Your task to perform on an android device: Add logitech g502 to the cart on amazon Image 0: 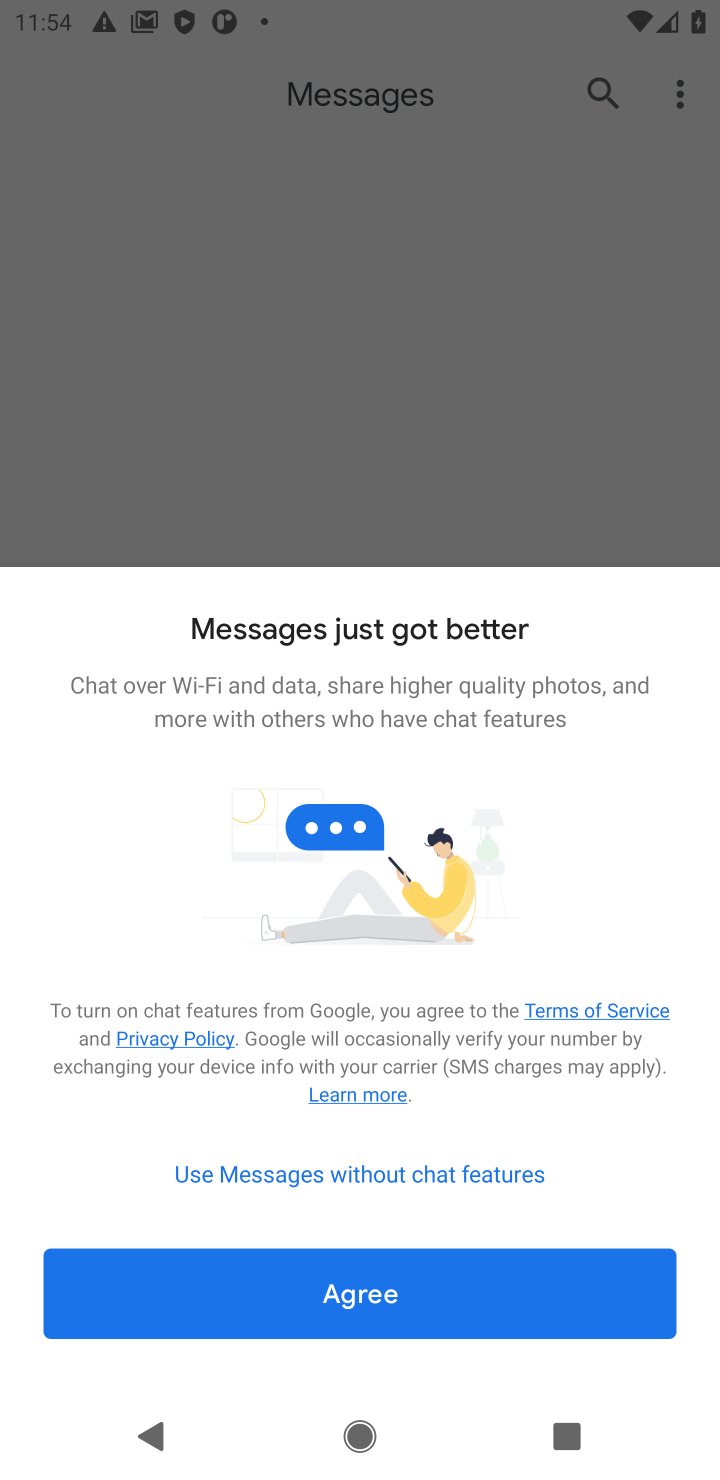
Step 0: press home button
Your task to perform on an android device: Add logitech g502 to the cart on amazon Image 1: 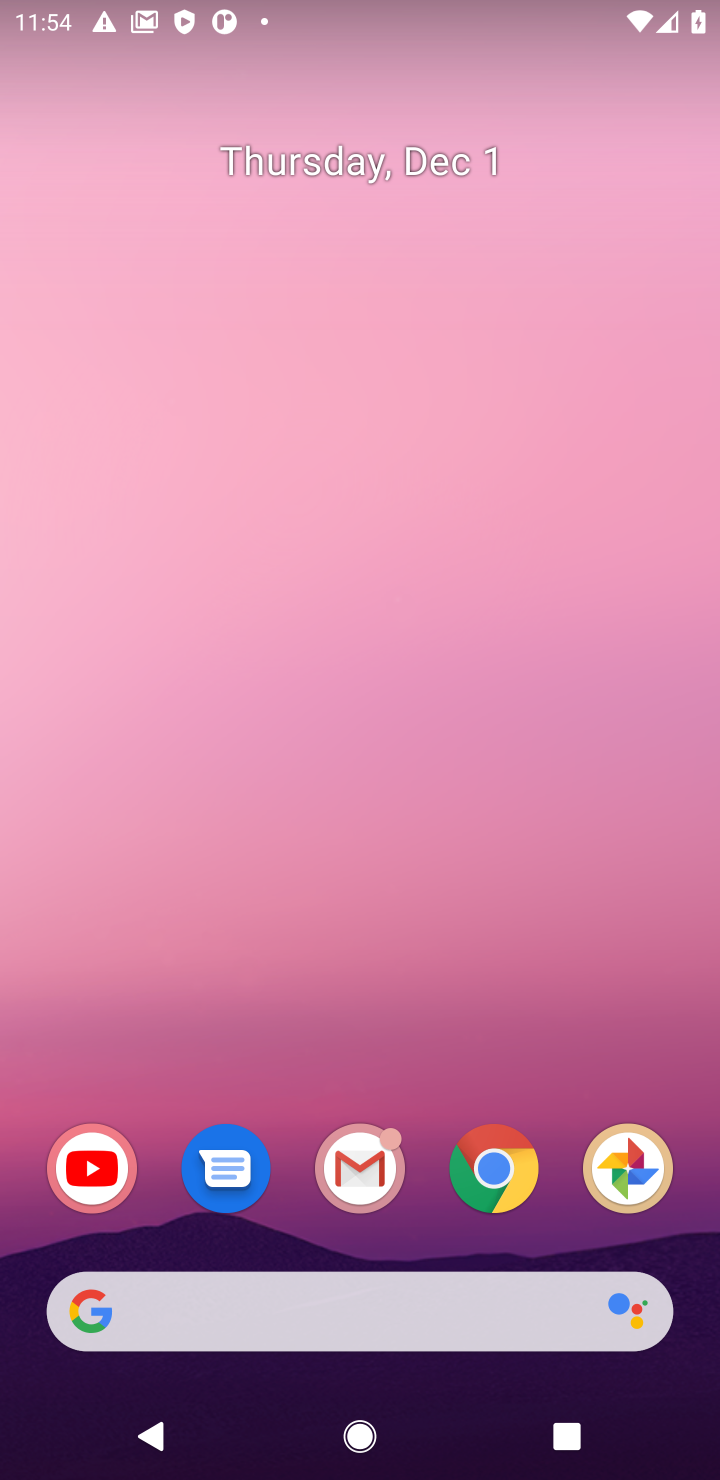
Step 1: click (507, 1165)
Your task to perform on an android device: Add logitech g502 to the cart on amazon Image 2: 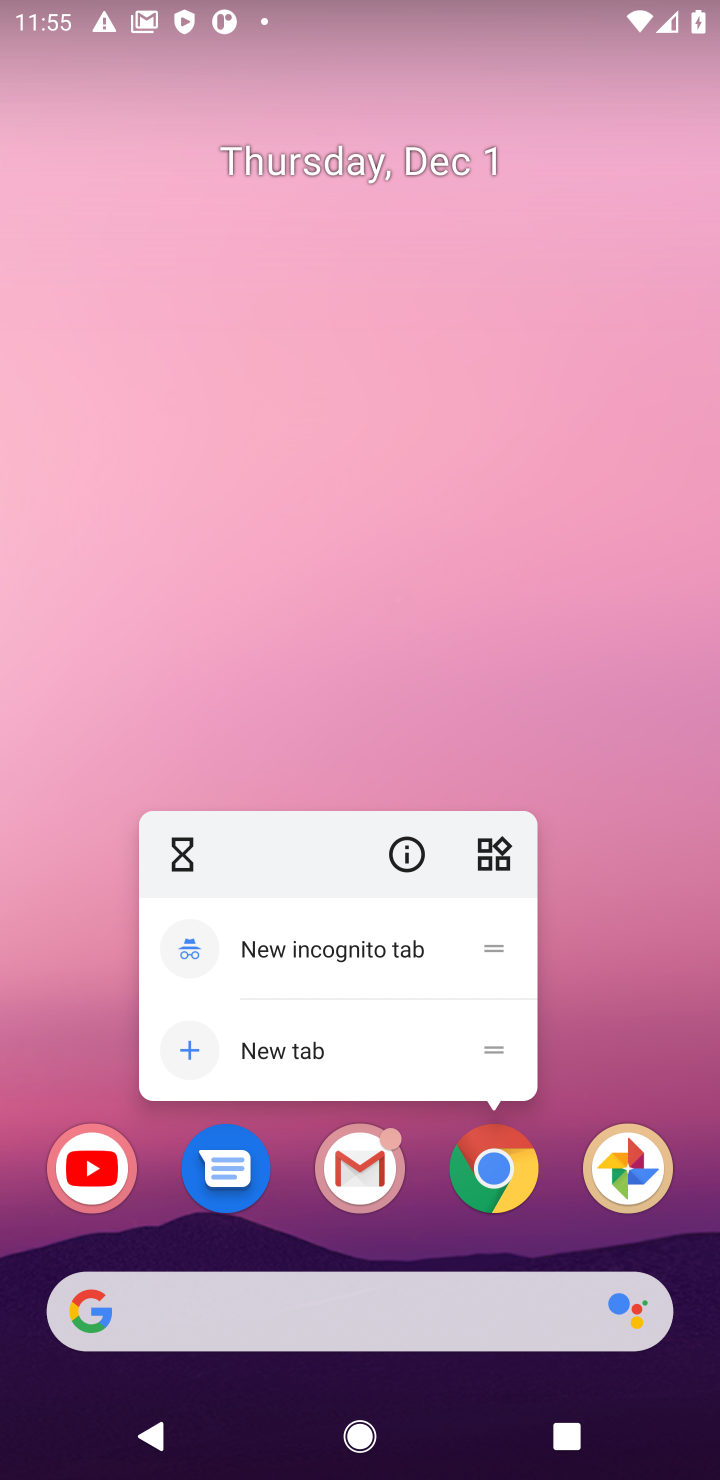
Step 2: click (507, 1165)
Your task to perform on an android device: Add logitech g502 to the cart on amazon Image 3: 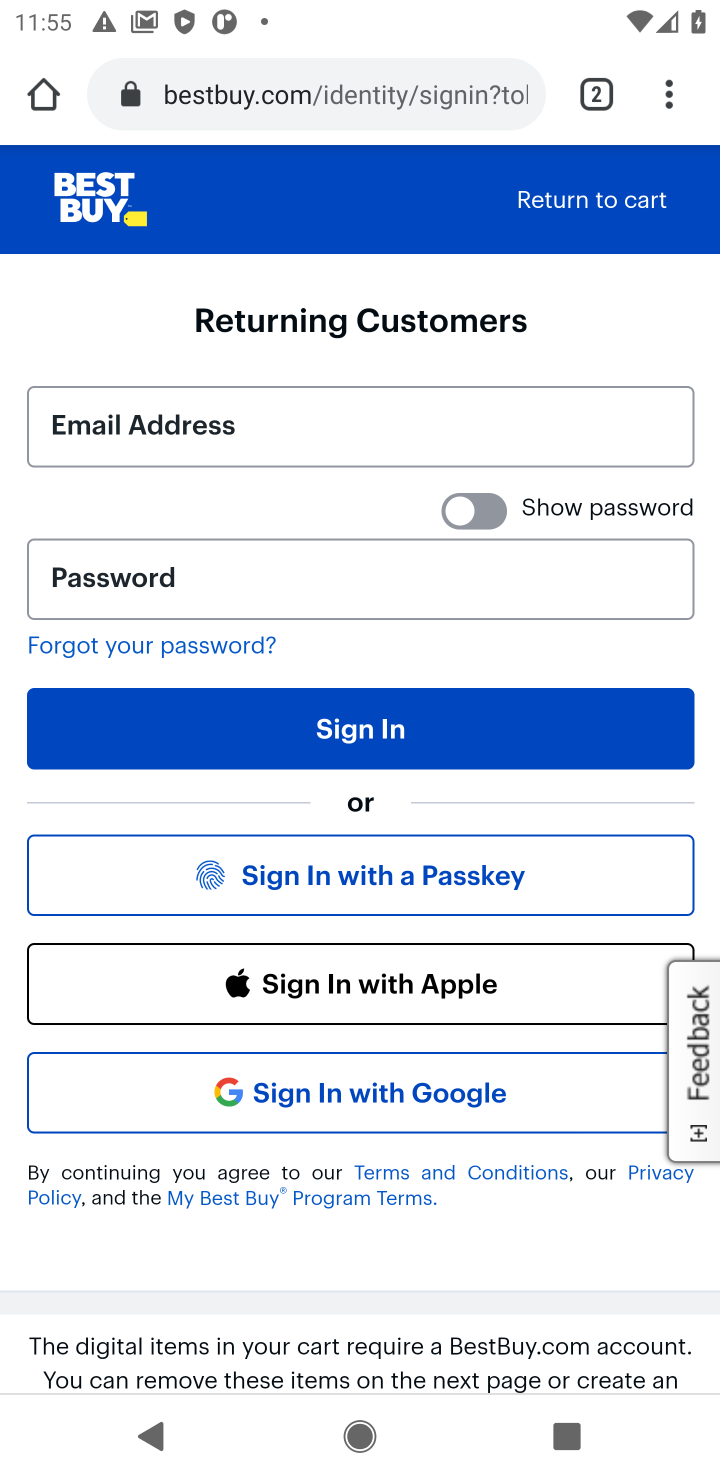
Step 3: click (304, 98)
Your task to perform on an android device: Add logitech g502 to the cart on amazon Image 4: 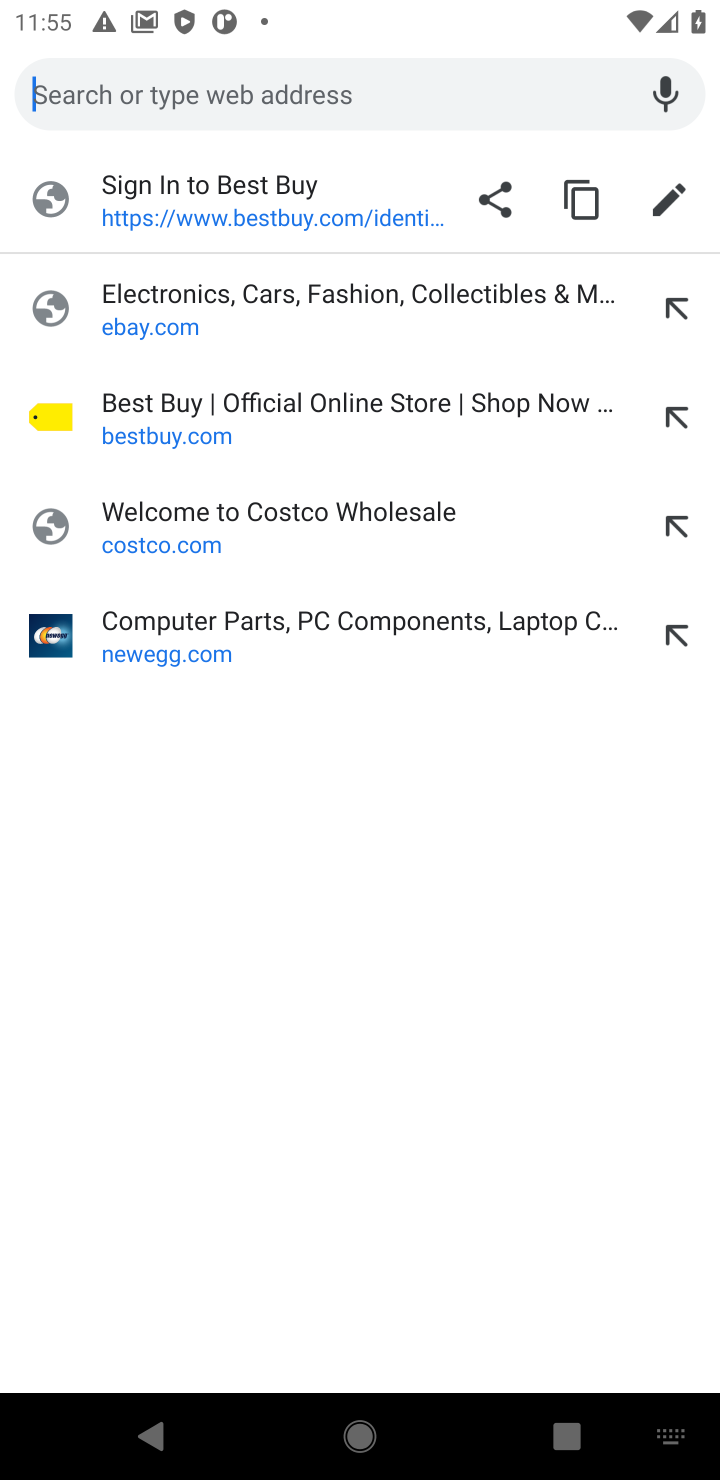
Step 4: type "amazon.com"
Your task to perform on an android device: Add logitech g502 to the cart on amazon Image 5: 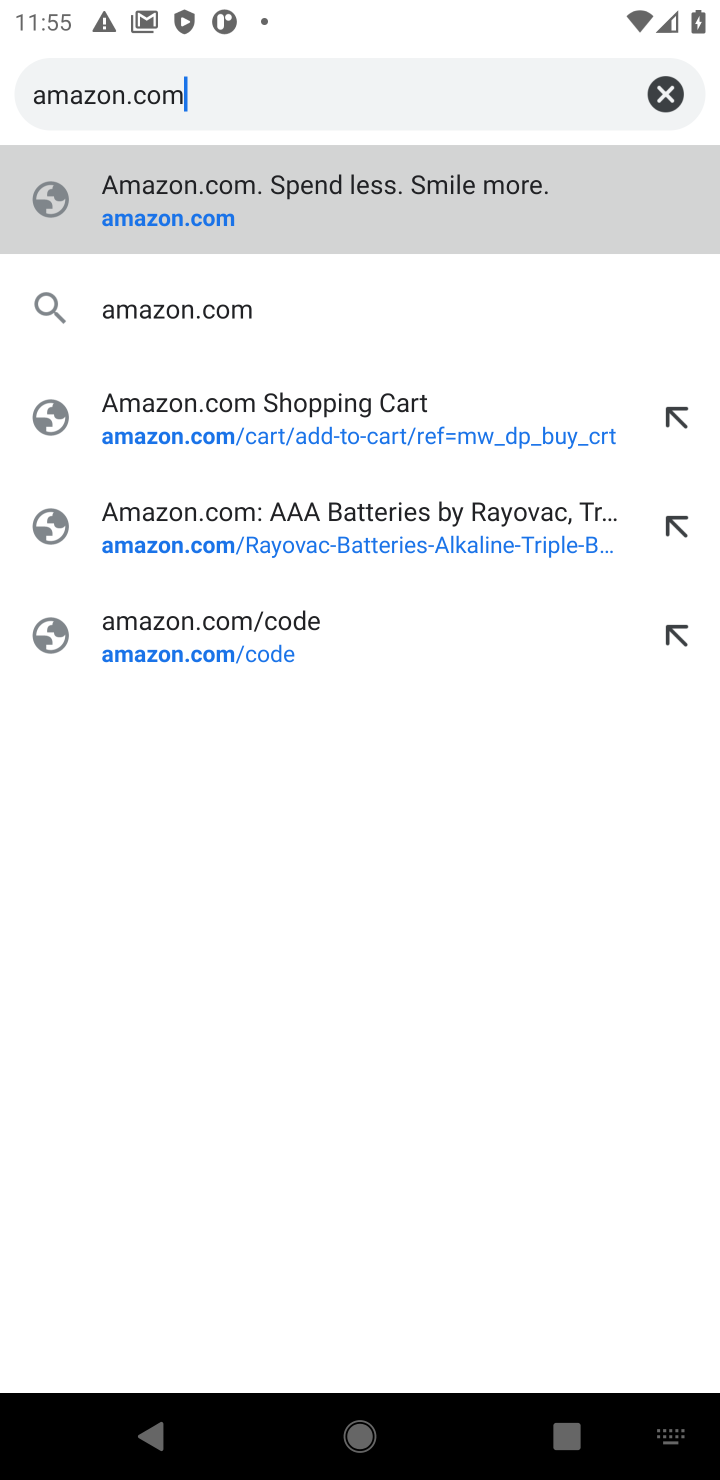
Step 5: click (169, 200)
Your task to perform on an android device: Add logitech g502 to the cart on amazon Image 6: 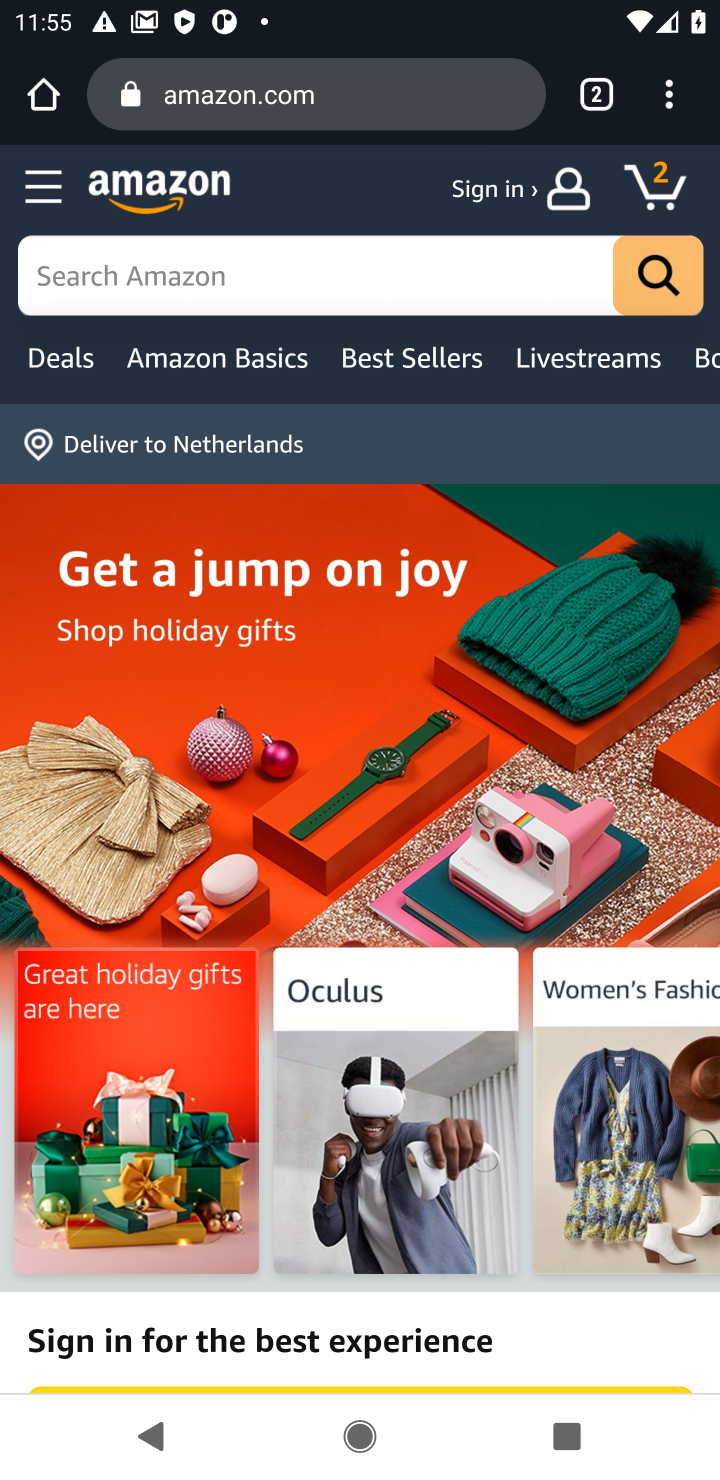
Step 6: click (133, 289)
Your task to perform on an android device: Add logitech g502 to the cart on amazon Image 7: 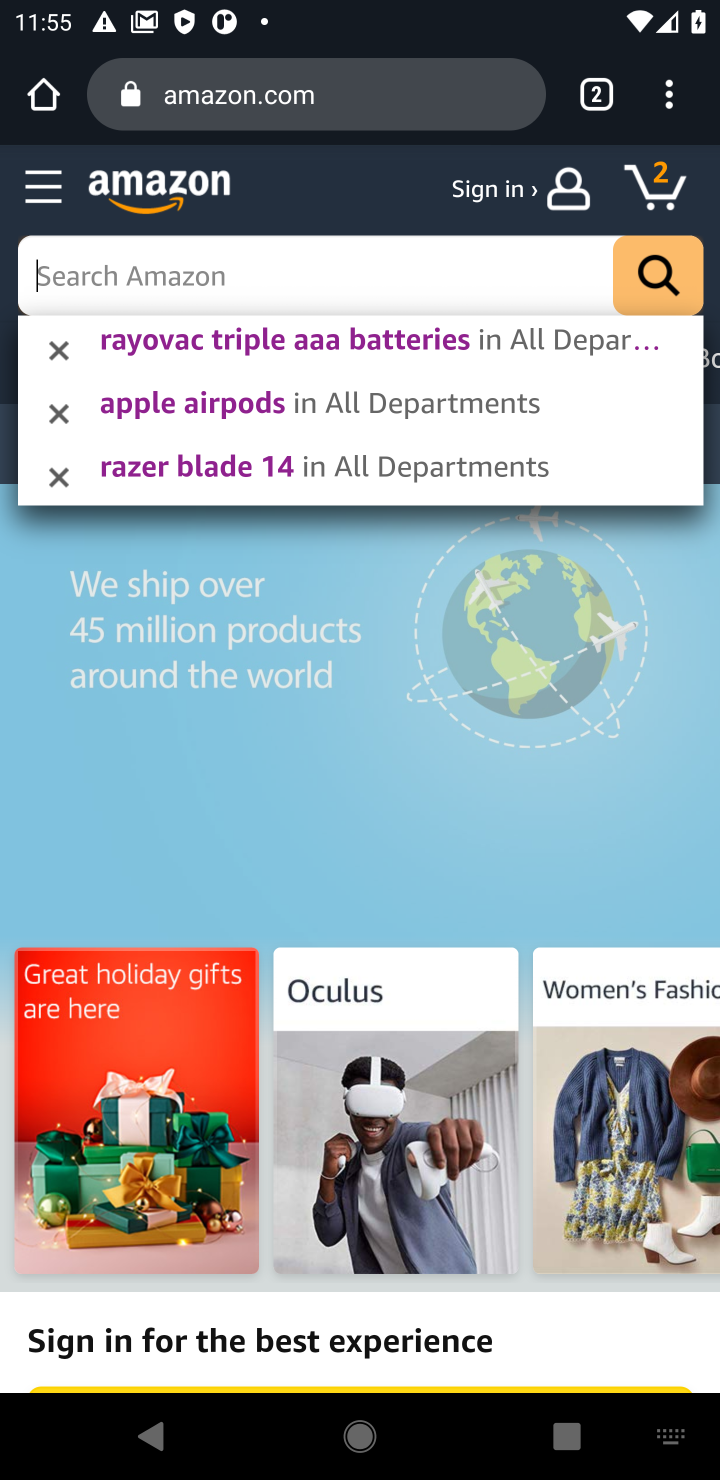
Step 7: type "logitech g502"
Your task to perform on an android device: Add logitech g502 to the cart on amazon Image 8: 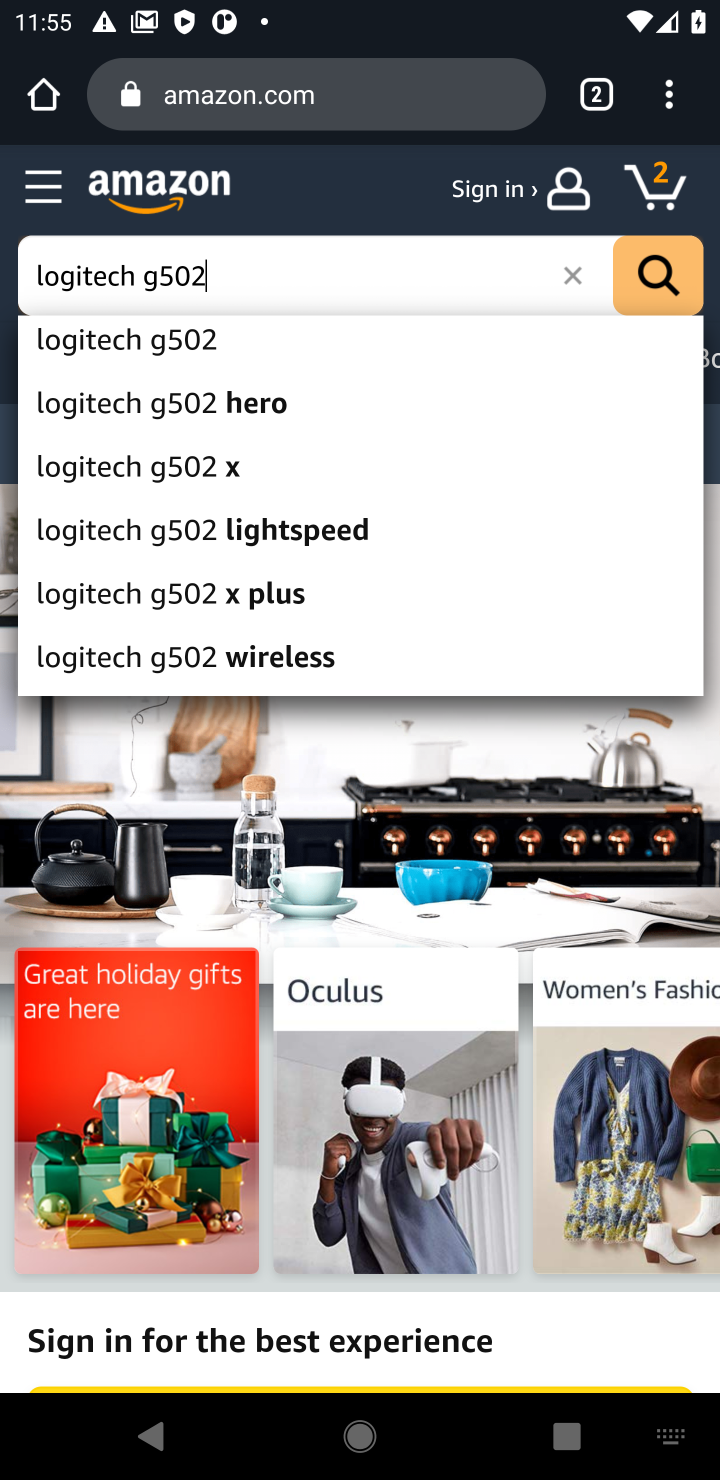
Step 8: click (140, 347)
Your task to perform on an android device: Add logitech g502 to the cart on amazon Image 9: 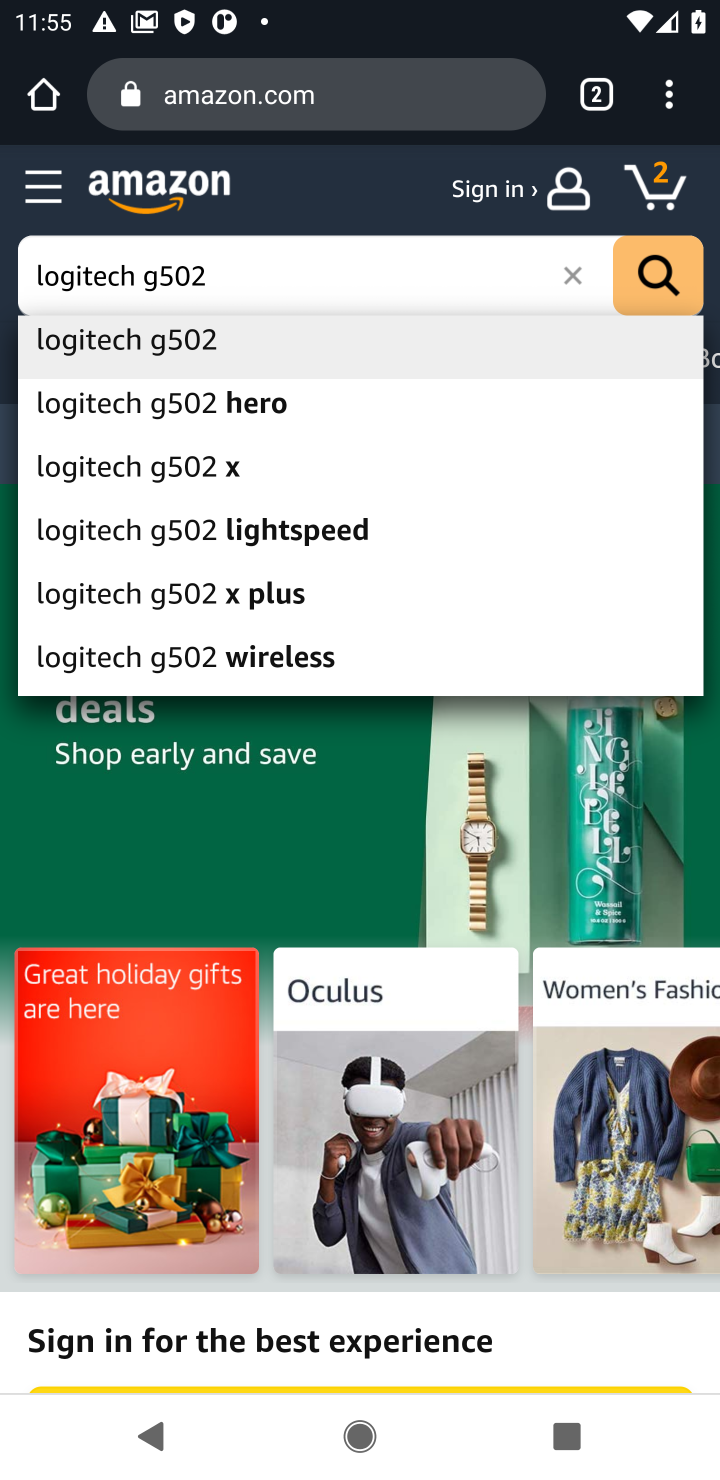
Step 9: click (72, 340)
Your task to perform on an android device: Add logitech g502 to the cart on amazon Image 10: 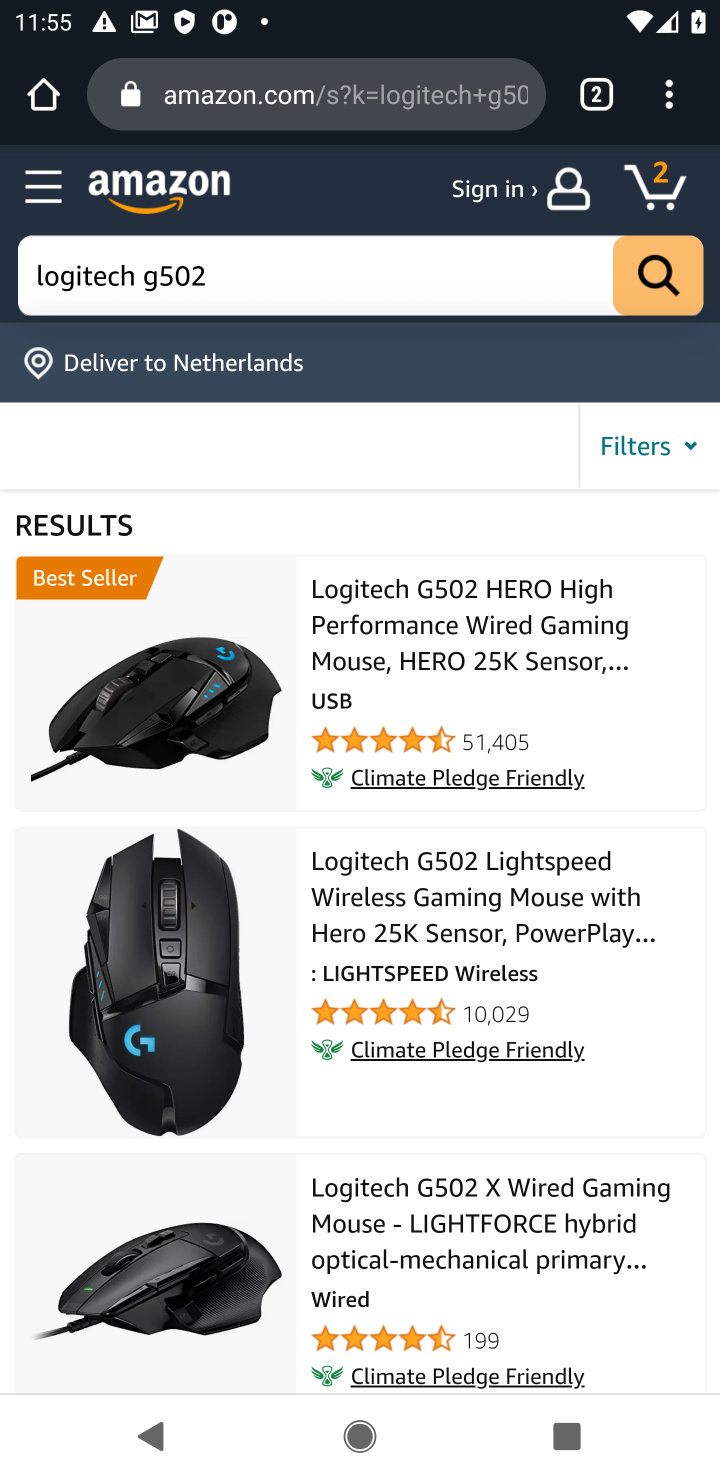
Step 10: drag from (353, 1000) to (349, 498)
Your task to perform on an android device: Add logitech g502 to the cart on amazon Image 11: 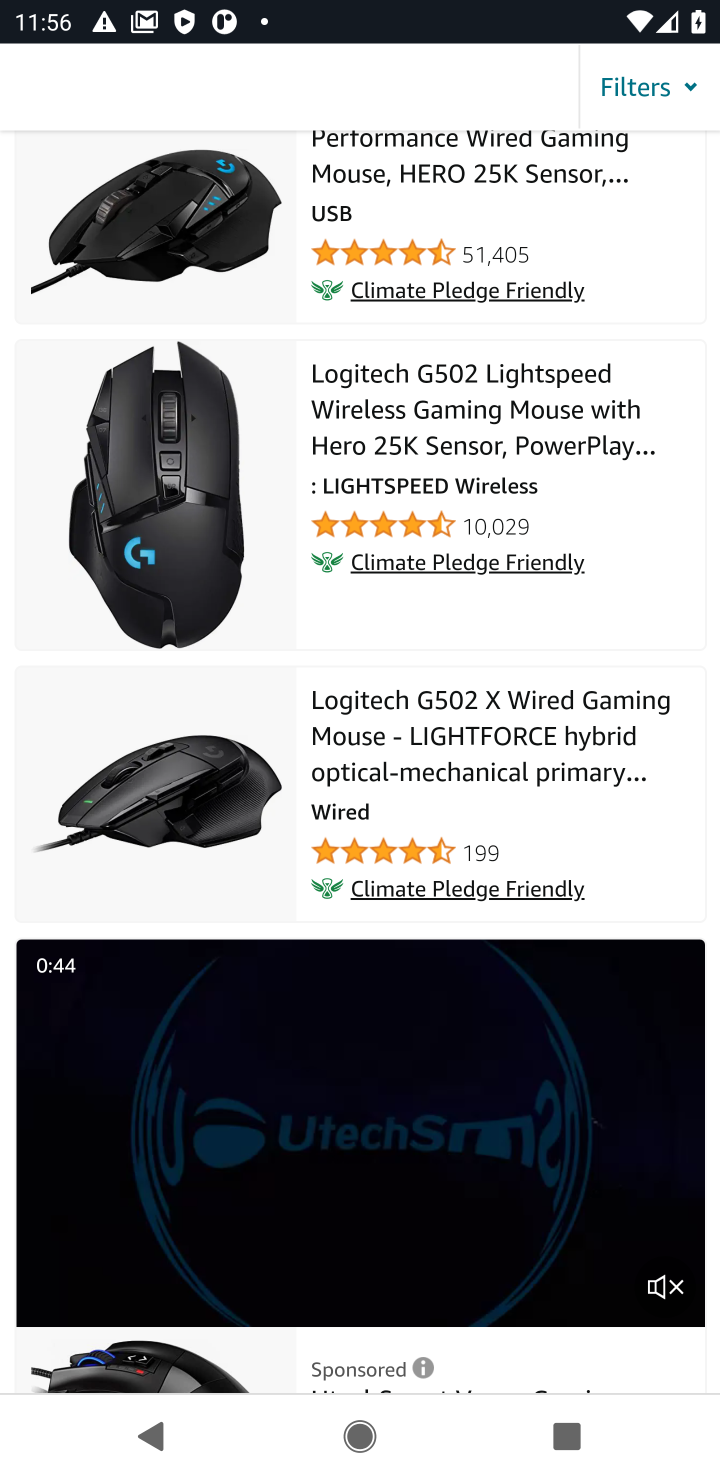
Step 11: drag from (365, 978) to (354, 268)
Your task to perform on an android device: Add logitech g502 to the cart on amazon Image 12: 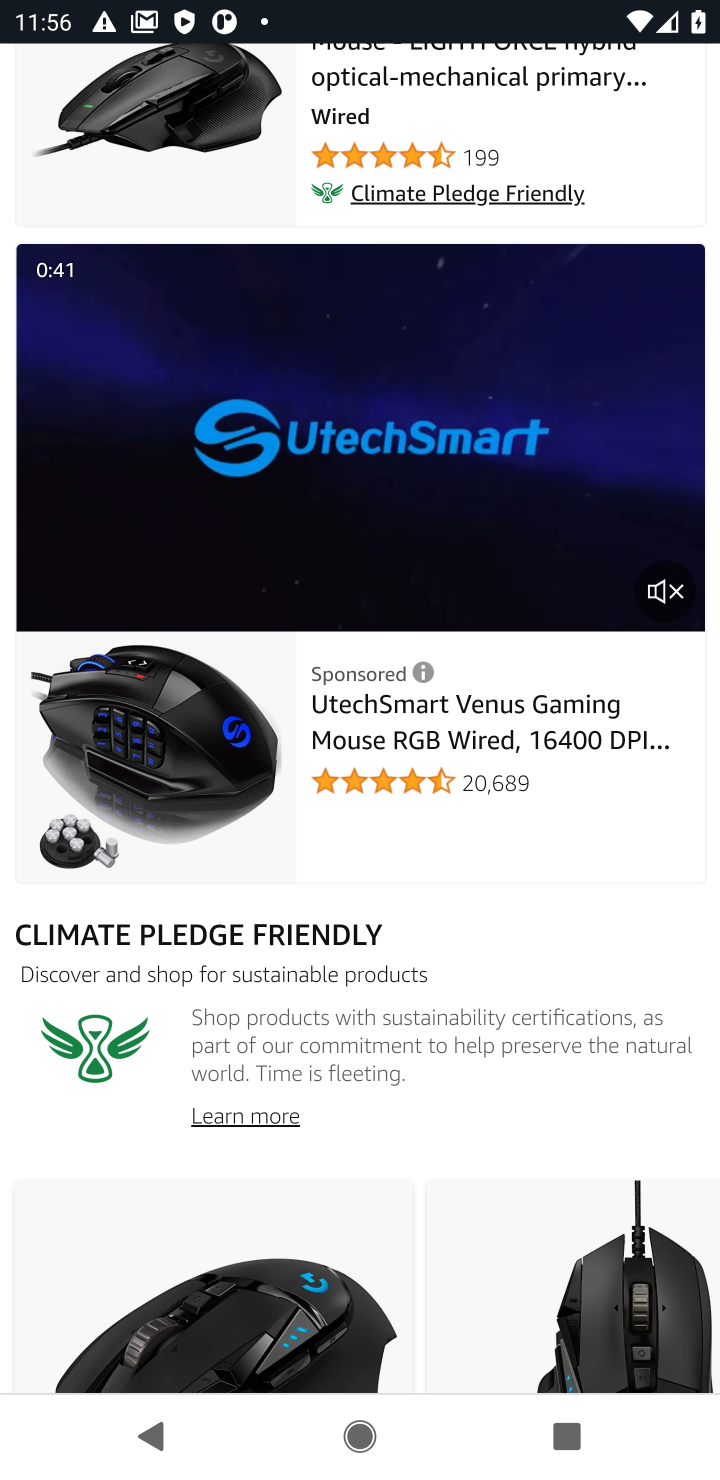
Step 12: drag from (340, 787) to (352, 268)
Your task to perform on an android device: Add logitech g502 to the cart on amazon Image 13: 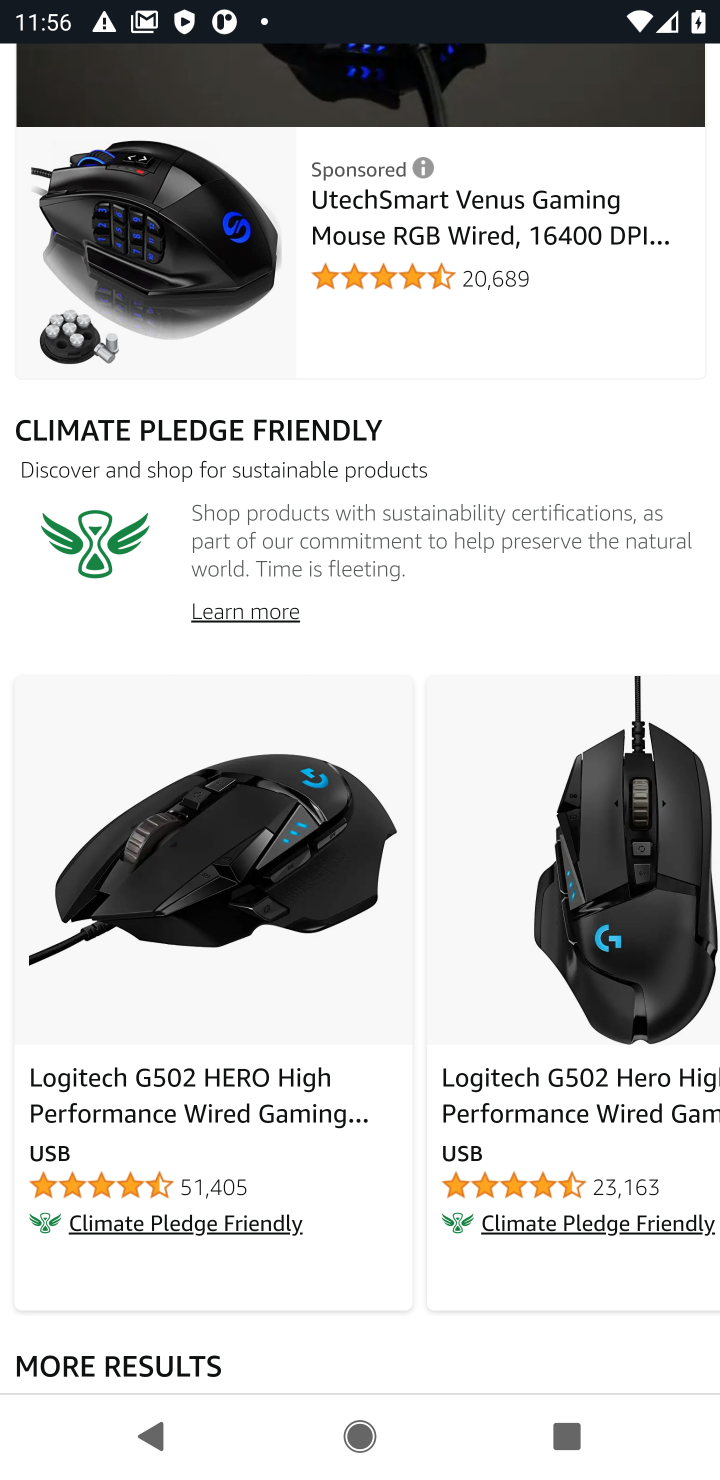
Step 13: drag from (320, 1009) to (324, 358)
Your task to perform on an android device: Add logitech g502 to the cart on amazon Image 14: 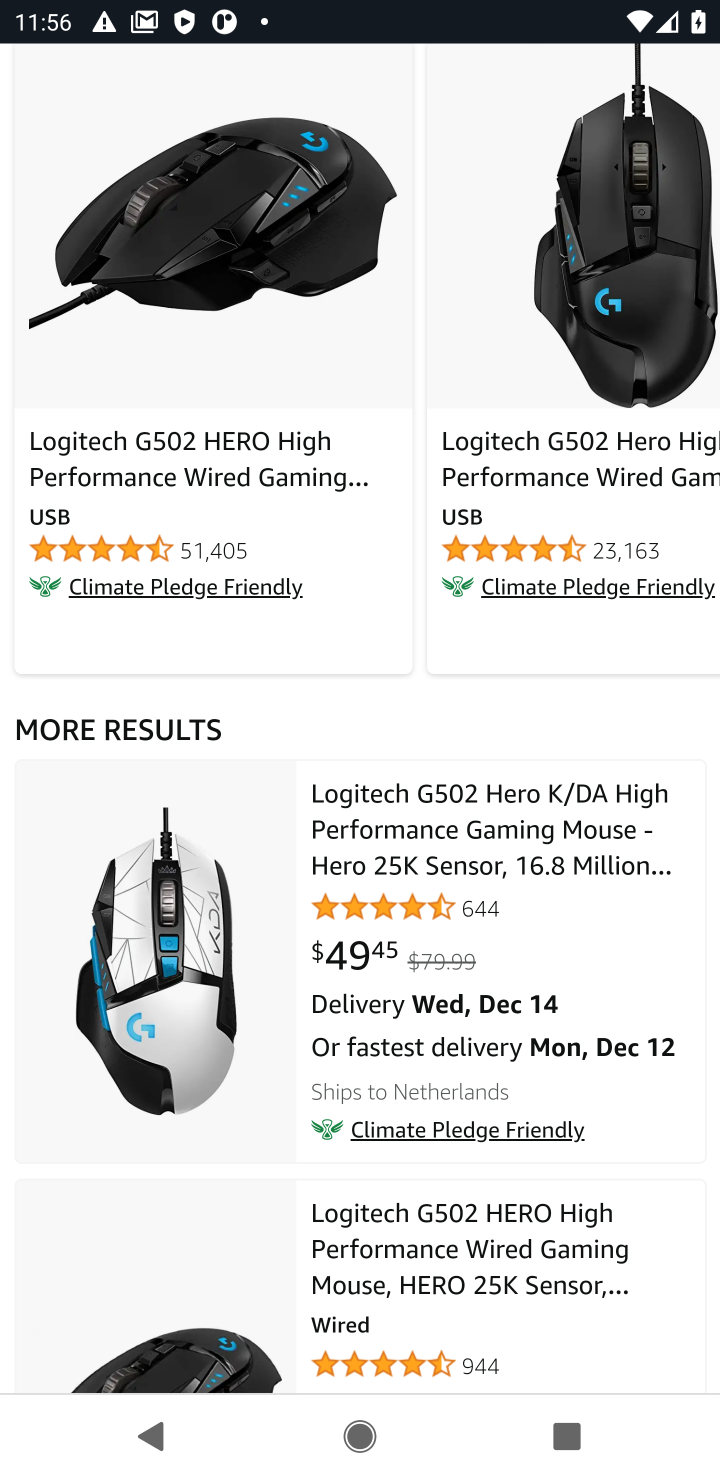
Step 14: click (464, 851)
Your task to perform on an android device: Add logitech g502 to the cart on amazon Image 15: 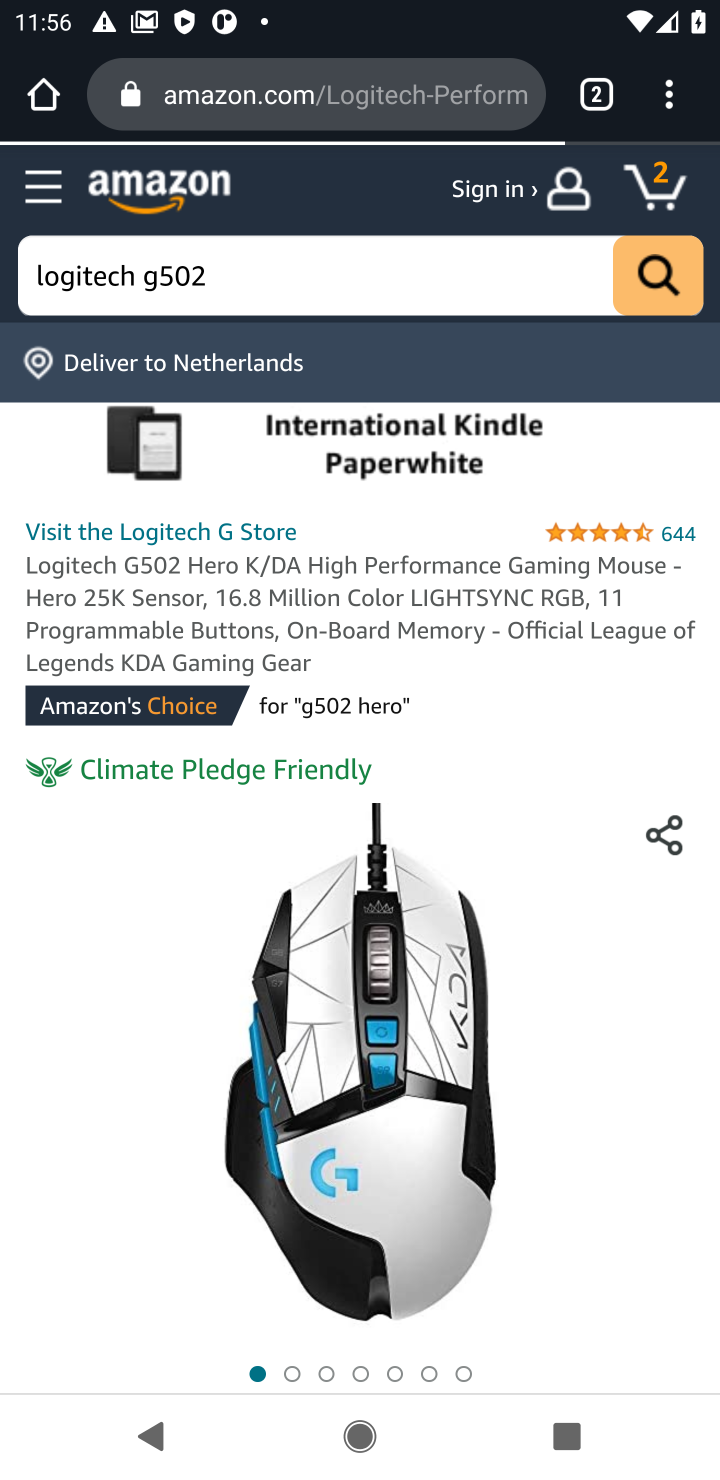
Step 15: drag from (470, 1097) to (424, 390)
Your task to perform on an android device: Add logitech g502 to the cart on amazon Image 16: 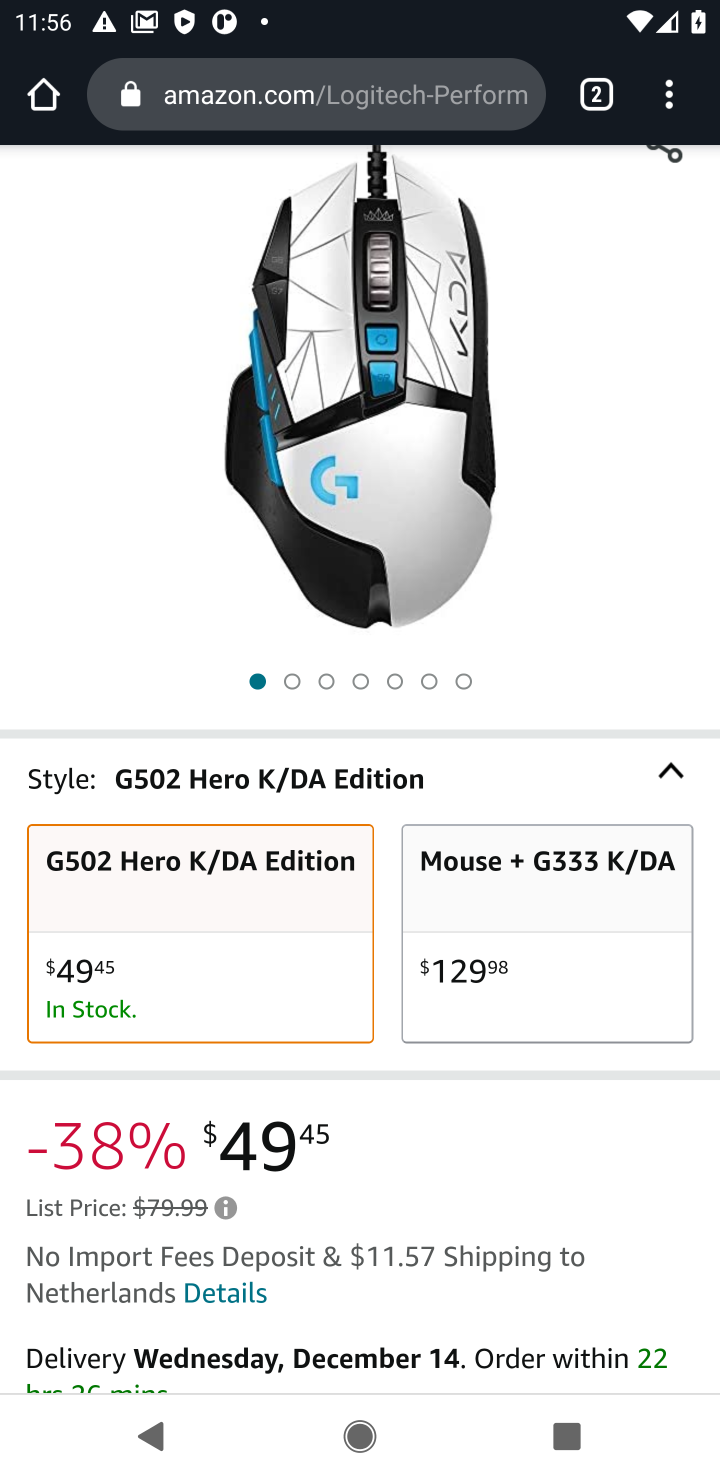
Step 16: drag from (402, 1077) to (373, 480)
Your task to perform on an android device: Add logitech g502 to the cart on amazon Image 17: 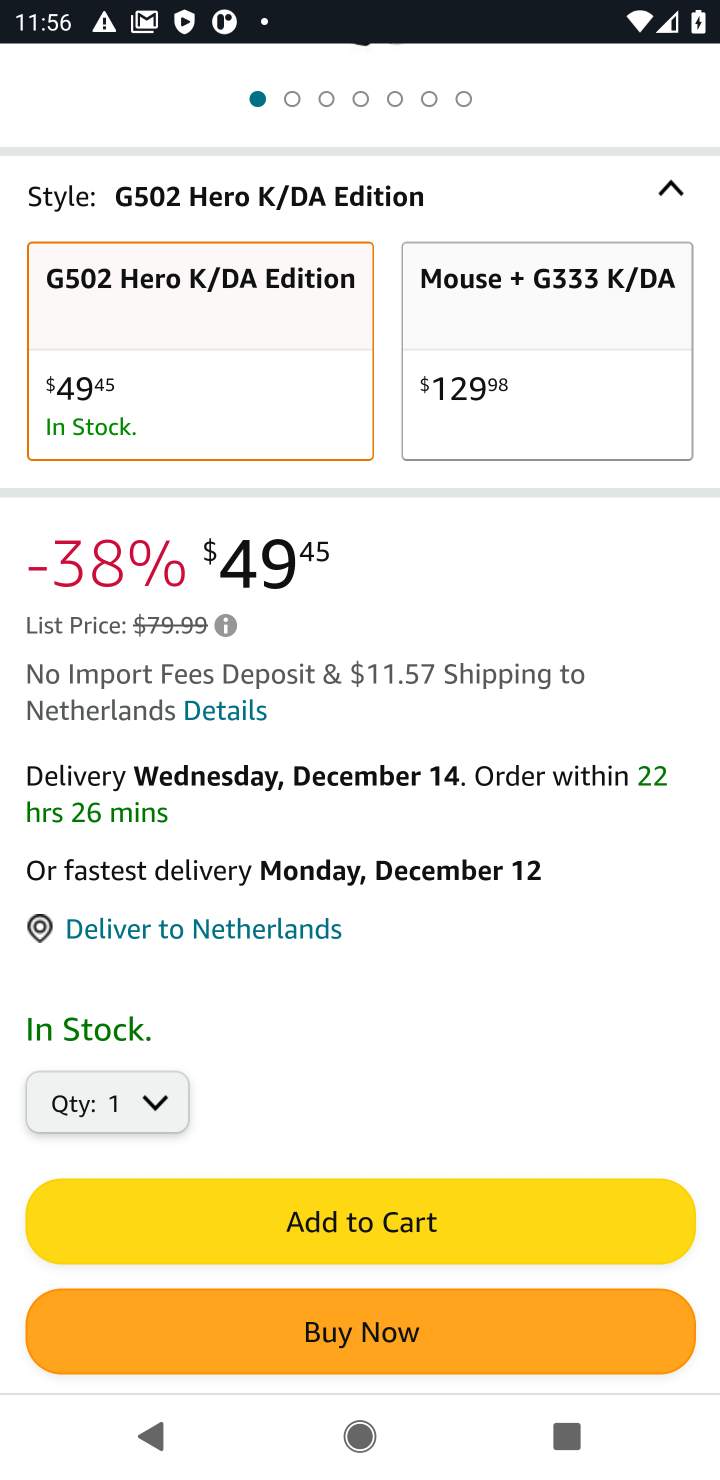
Step 17: click (348, 1209)
Your task to perform on an android device: Add logitech g502 to the cart on amazon Image 18: 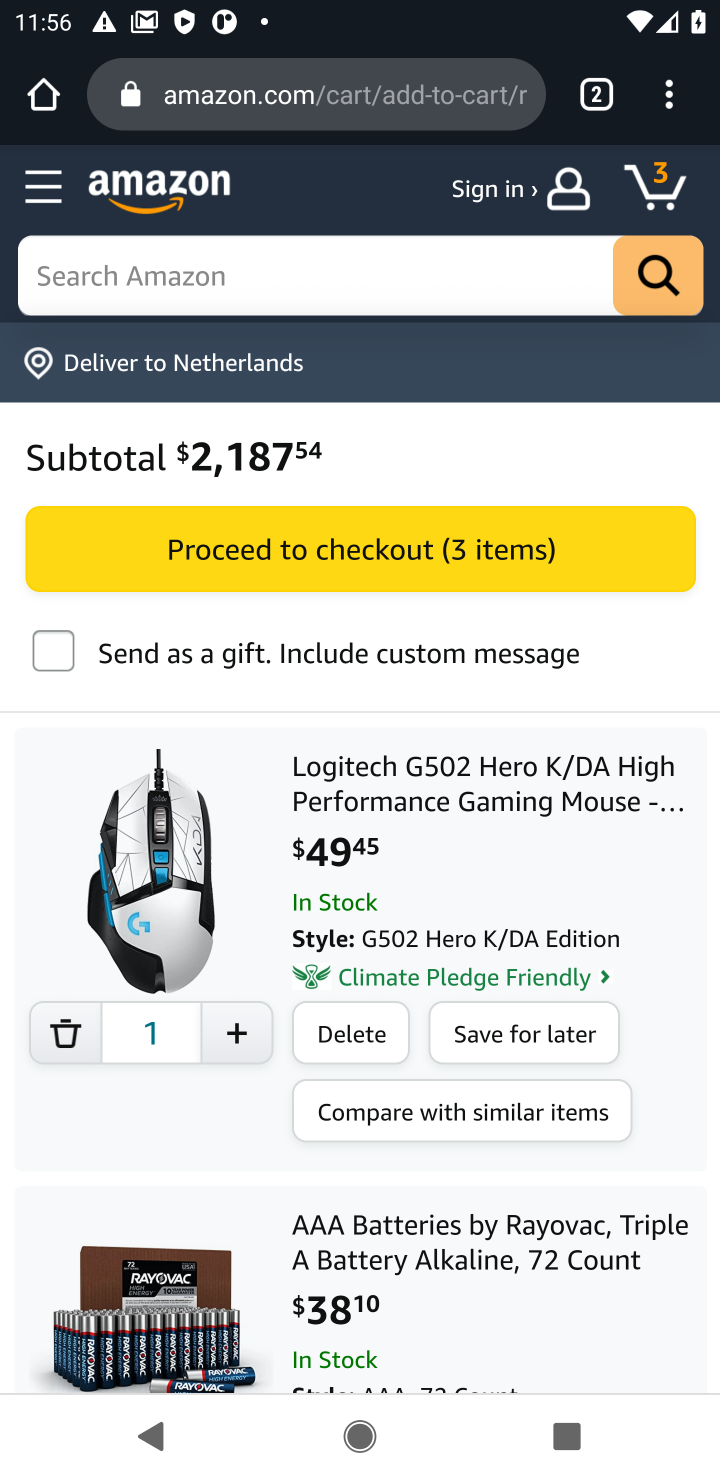
Step 18: task complete